Your task to perform on an android device: Open Chrome and go to settings Image 0: 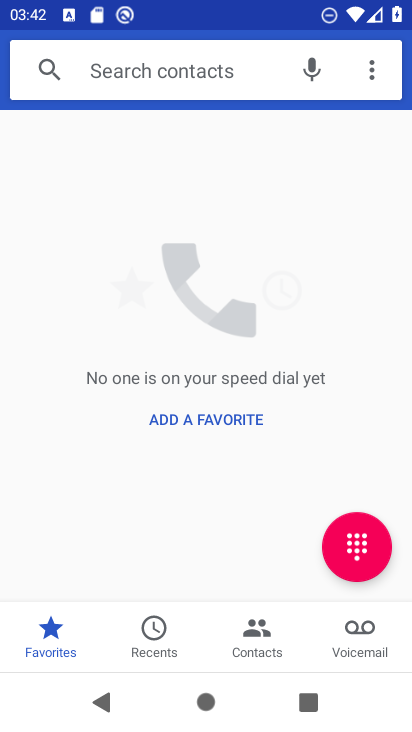
Step 0: press home button
Your task to perform on an android device: Open Chrome and go to settings Image 1: 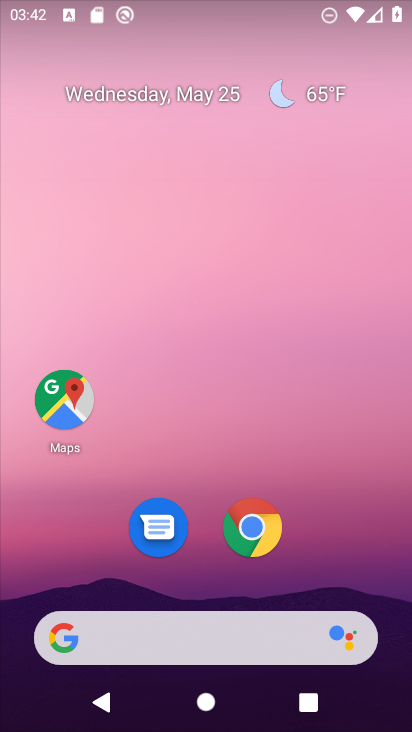
Step 1: drag from (337, 647) to (345, 2)
Your task to perform on an android device: Open Chrome and go to settings Image 2: 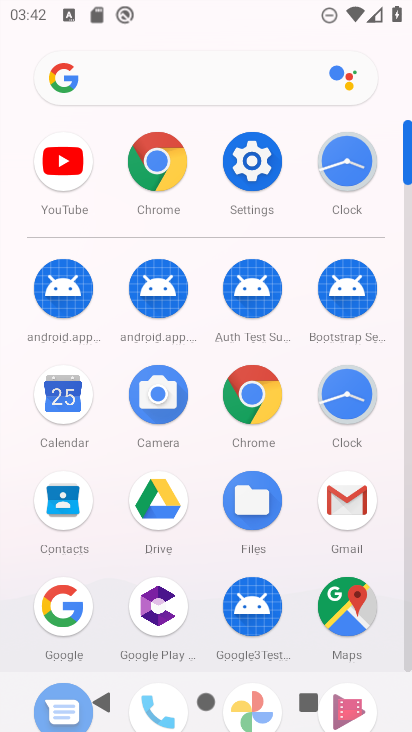
Step 2: click (250, 403)
Your task to perform on an android device: Open Chrome and go to settings Image 3: 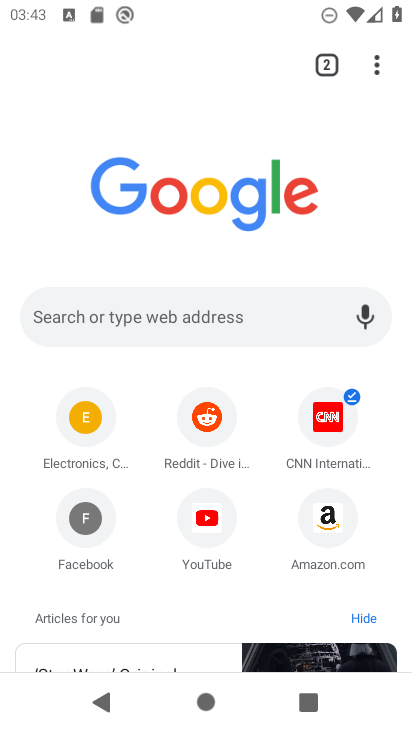
Step 3: click (376, 63)
Your task to perform on an android device: Open Chrome and go to settings Image 4: 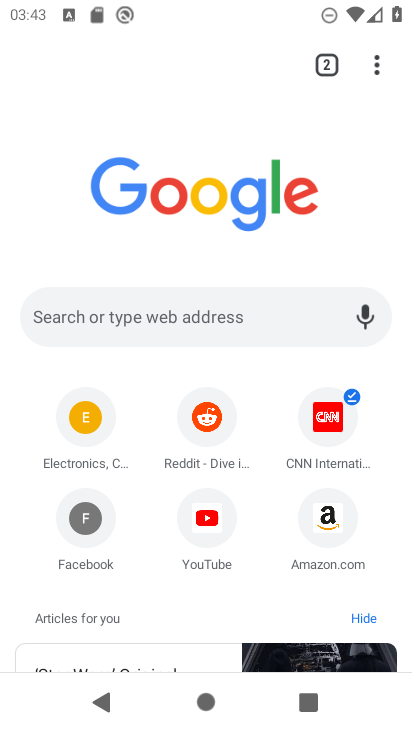
Step 4: task complete